Your task to perform on an android device: Open settings Image 0: 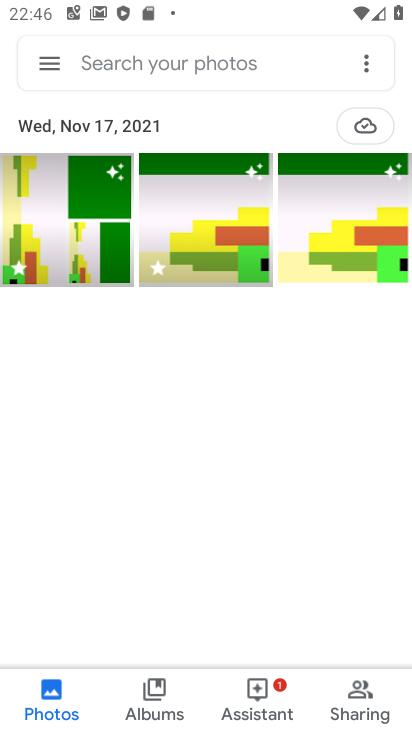
Step 0: press home button
Your task to perform on an android device: Open settings Image 1: 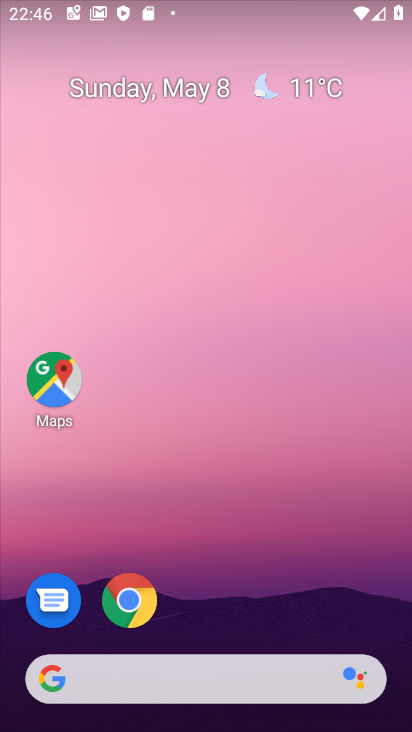
Step 1: drag from (267, 624) to (288, 23)
Your task to perform on an android device: Open settings Image 2: 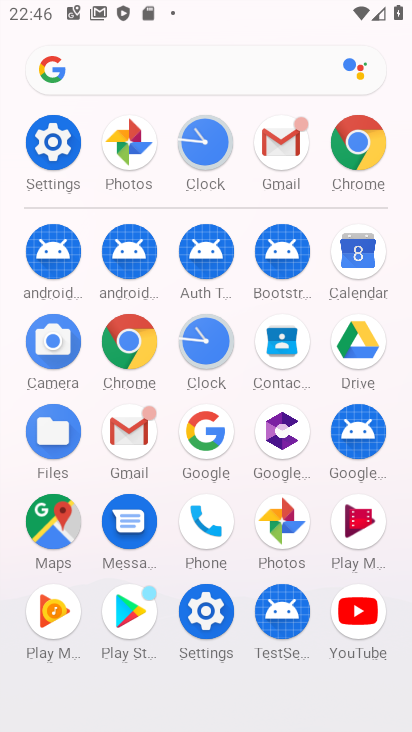
Step 2: click (49, 148)
Your task to perform on an android device: Open settings Image 3: 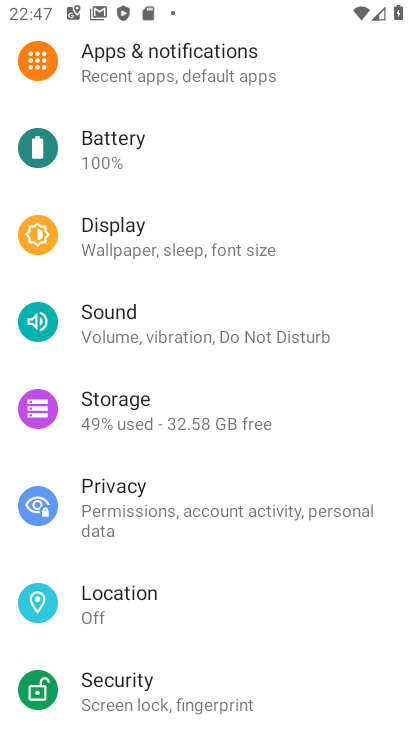
Step 3: task complete